Your task to perform on an android device: Go to CNN.com Image 0: 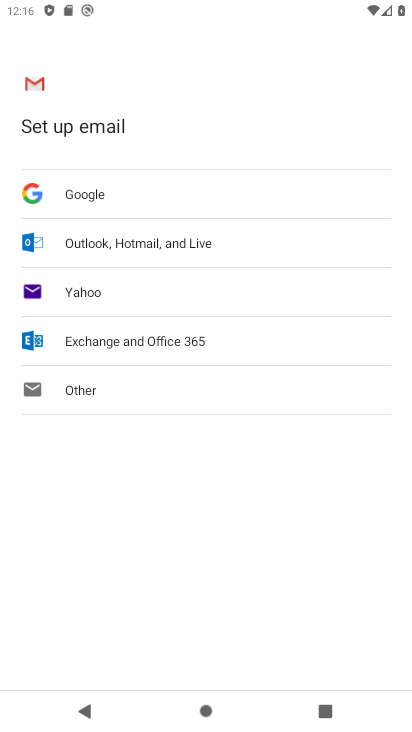
Step 0: press home button
Your task to perform on an android device: Go to CNN.com Image 1: 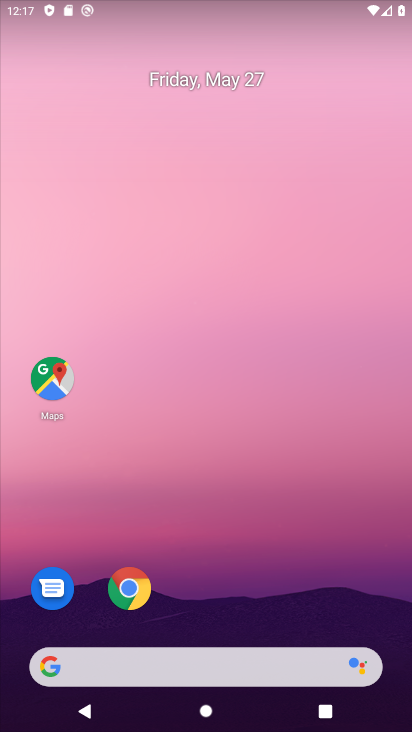
Step 1: click (125, 592)
Your task to perform on an android device: Go to CNN.com Image 2: 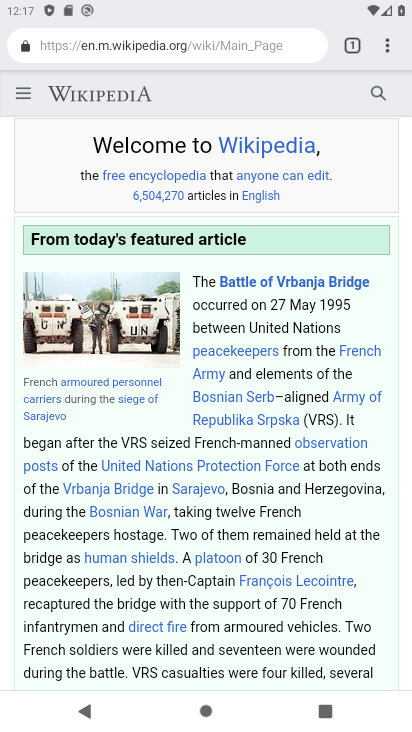
Step 2: click (352, 45)
Your task to perform on an android device: Go to CNN.com Image 3: 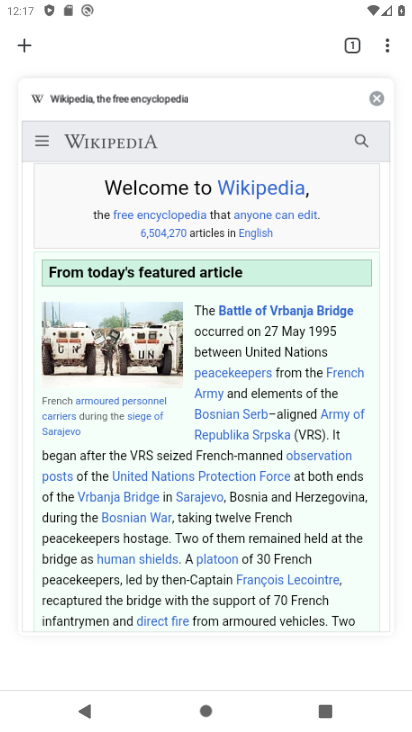
Step 3: click (339, 43)
Your task to perform on an android device: Go to CNN.com Image 4: 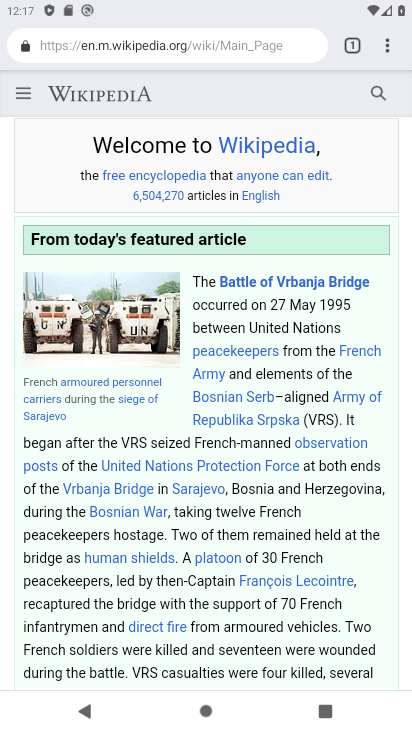
Step 4: click (31, 43)
Your task to perform on an android device: Go to CNN.com Image 5: 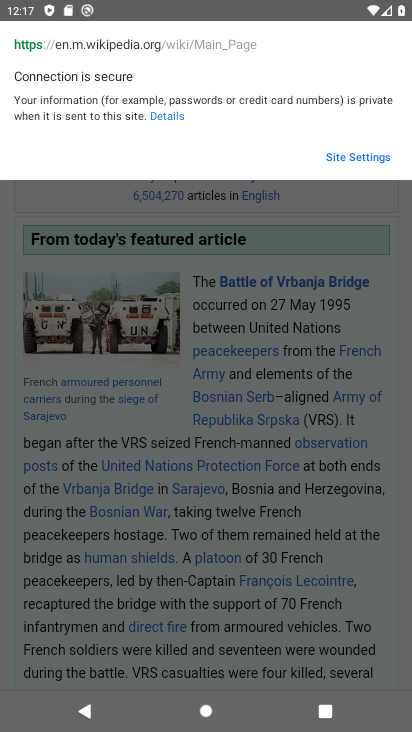
Step 5: click (348, 301)
Your task to perform on an android device: Go to CNN.com Image 6: 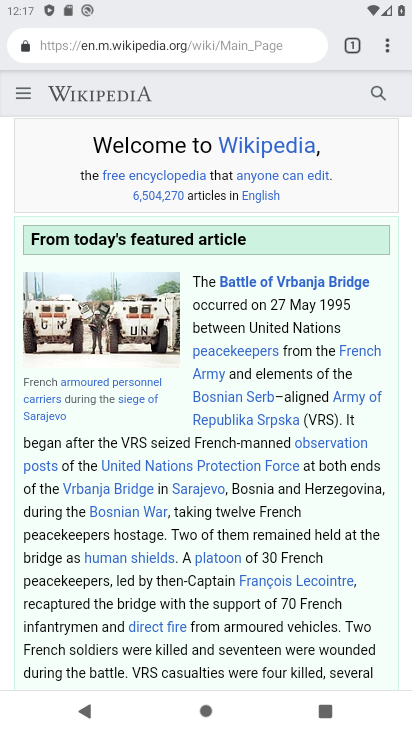
Step 6: click (353, 33)
Your task to perform on an android device: Go to CNN.com Image 7: 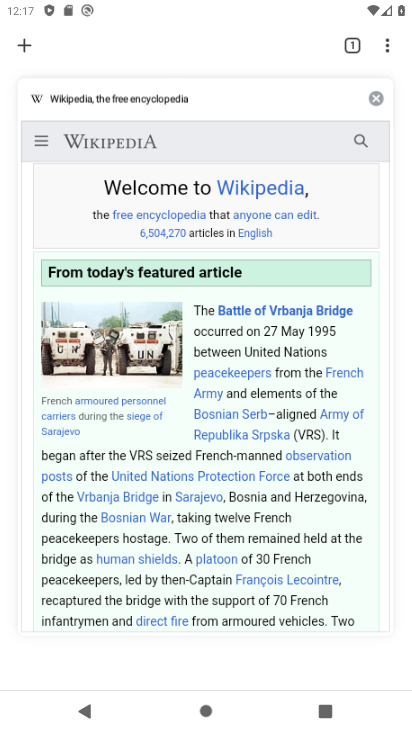
Step 7: click (28, 39)
Your task to perform on an android device: Go to CNN.com Image 8: 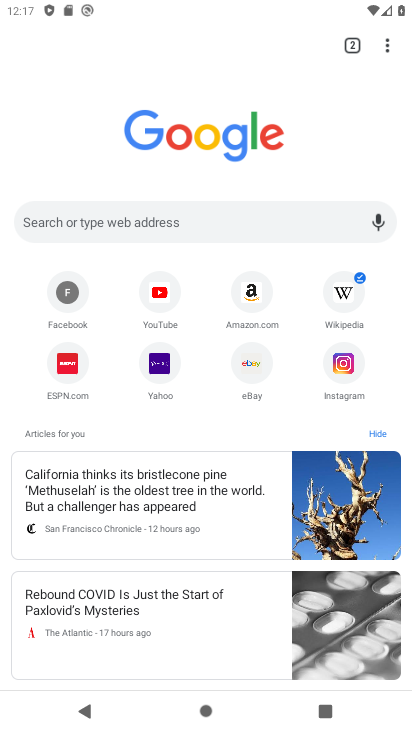
Step 8: click (195, 243)
Your task to perform on an android device: Go to CNN.com Image 9: 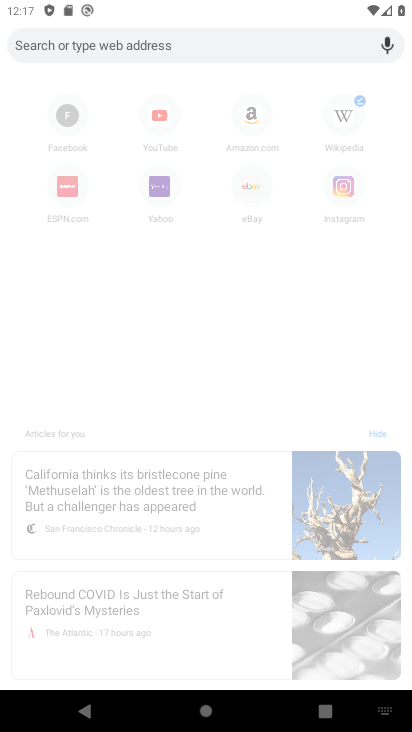
Step 9: type "cnn"
Your task to perform on an android device: Go to CNN.com Image 10: 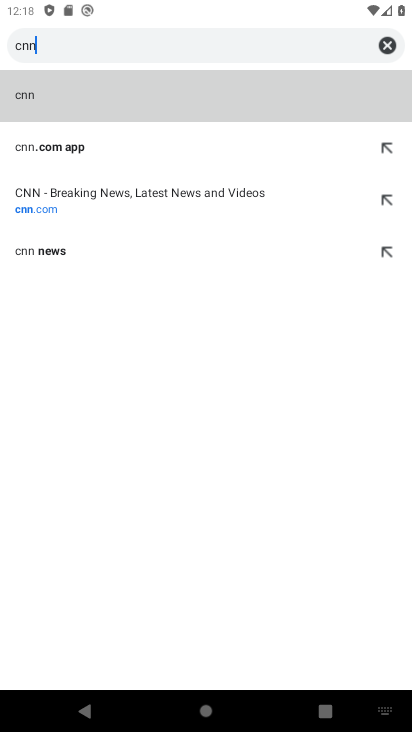
Step 10: click (108, 204)
Your task to perform on an android device: Go to CNN.com Image 11: 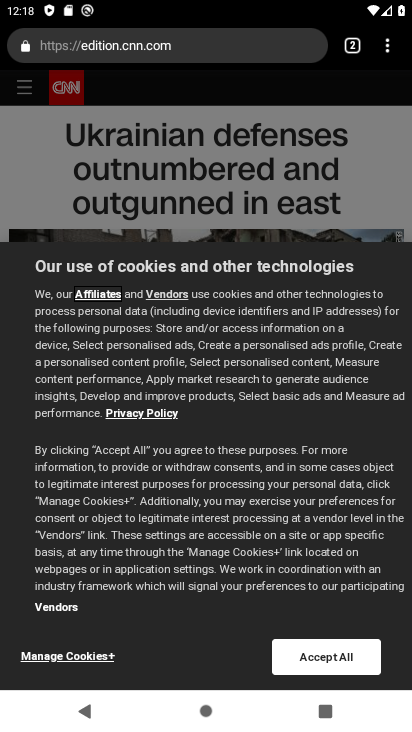
Step 11: task complete